Your task to perform on an android device: set an alarm Image 0: 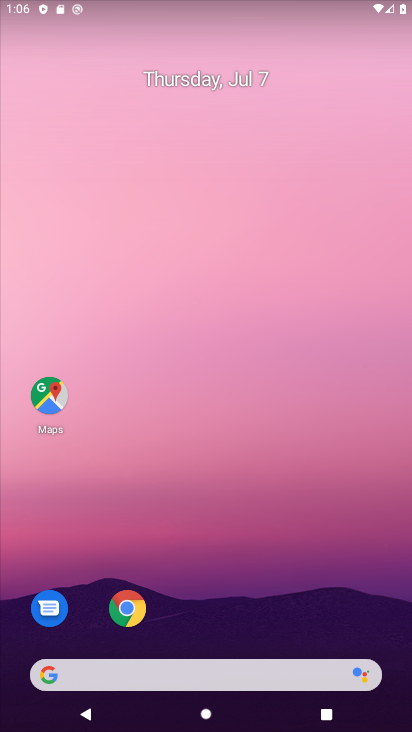
Step 0: drag from (201, 611) to (284, 6)
Your task to perform on an android device: set an alarm Image 1: 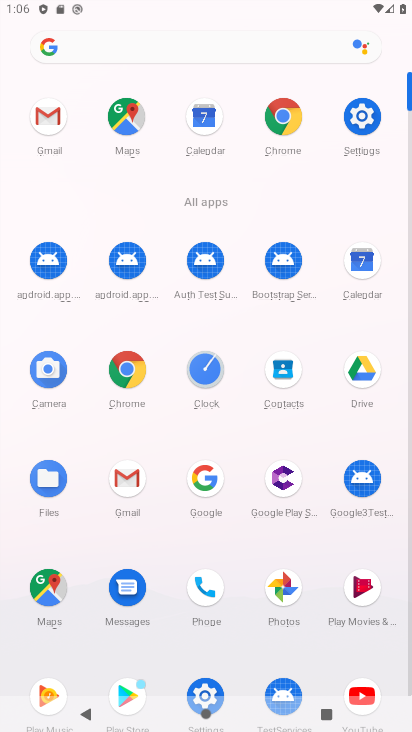
Step 1: click (204, 396)
Your task to perform on an android device: set an alarm Image 2: 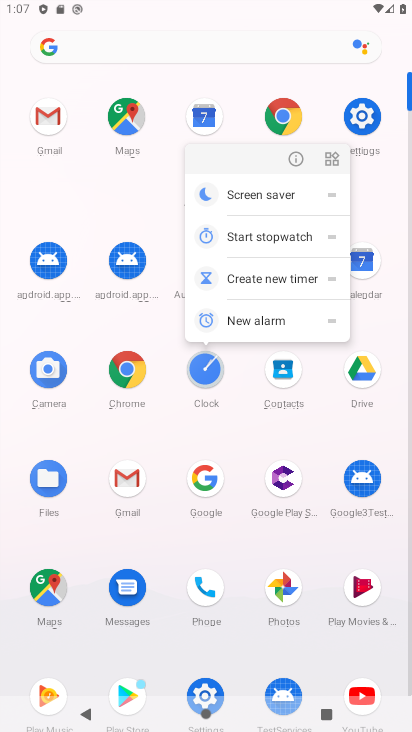
Step 2: click (125, 165)
Your task to perform on an android device: set an alarm Image 3: 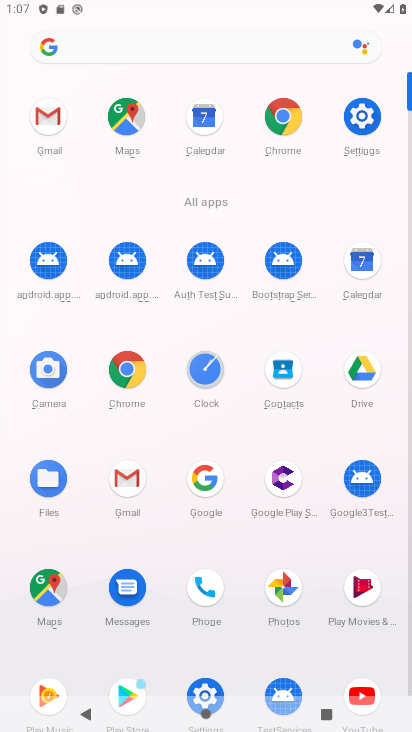
Step 3: click (192, 366)
Your task to perform on an android device: set an alarm Image 4: 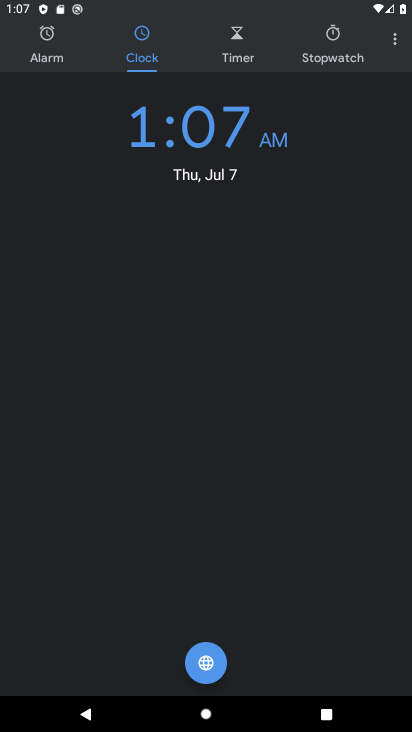
Step 4: click (37, 38)
Your task to perform on an android device: set an alarm Image 5: 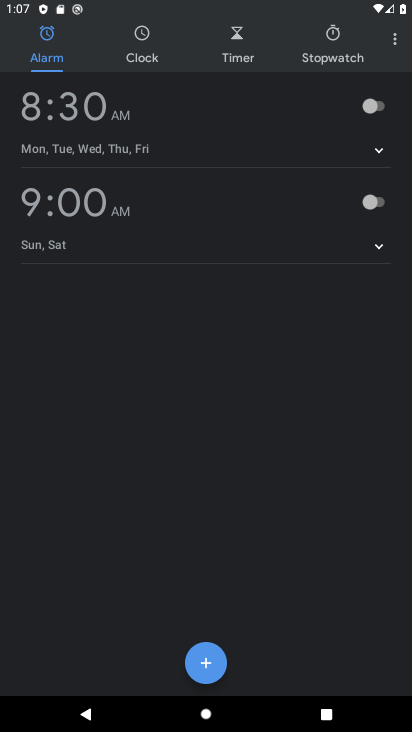
Step 5: click (376, 105)
Your task to perform on an android device: set an alarm Image 6: 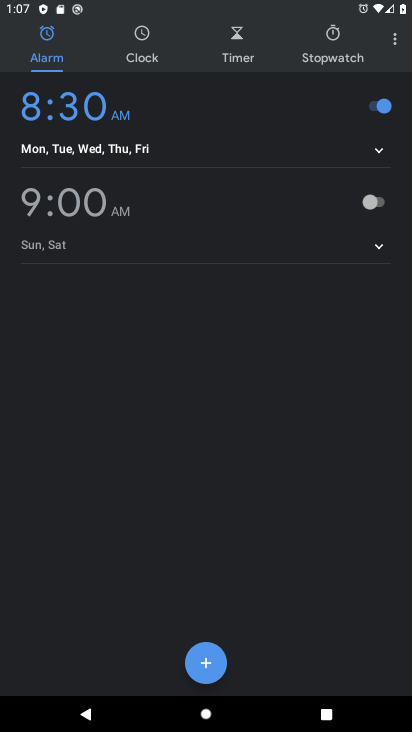
Step 6: task complete